Your task to perform on an android device: turn on translation in the chrome app Image 0: 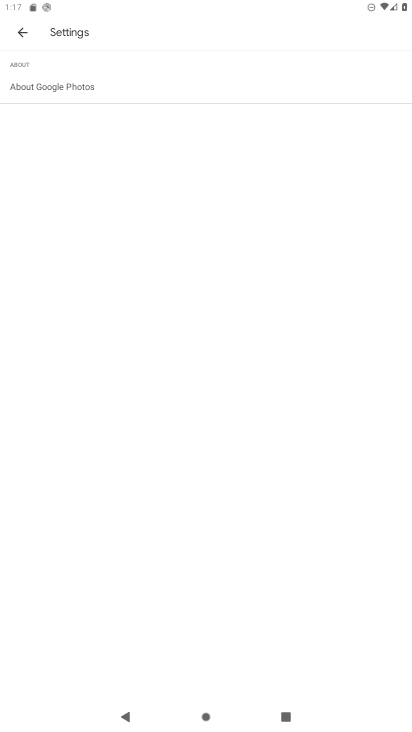
Step 0: press home button
Your task to perform on an android device: turn on translation in the chrome app Image 1: 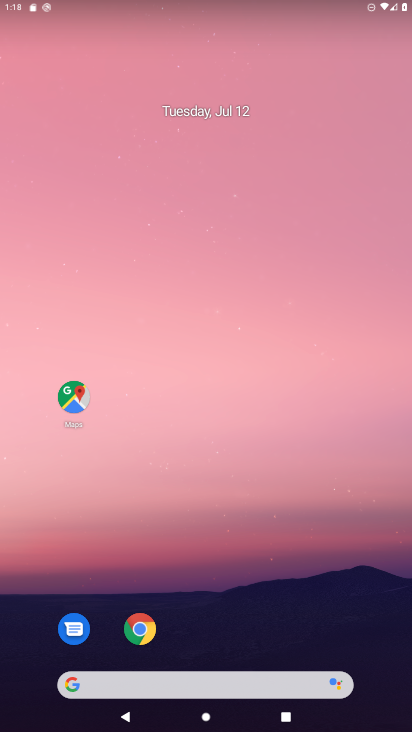
Step 1: click (141, 626)
Your task to perform on an android device: turn on translation in the chrome app Image 2: 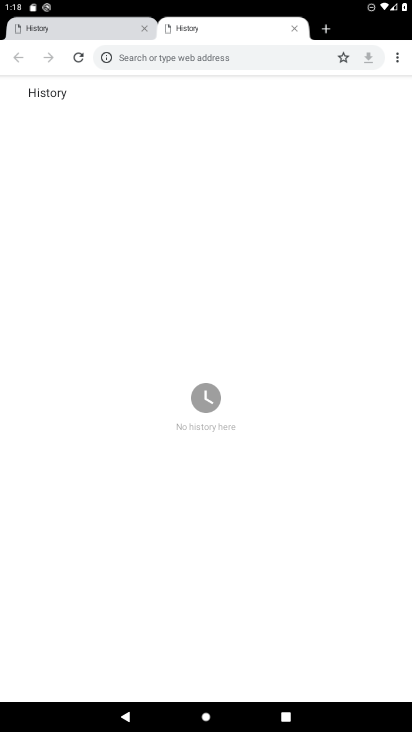
Step 2: click (396, 54)
Your task to perform on an android device: turn on translation in the chrome app Image 3: 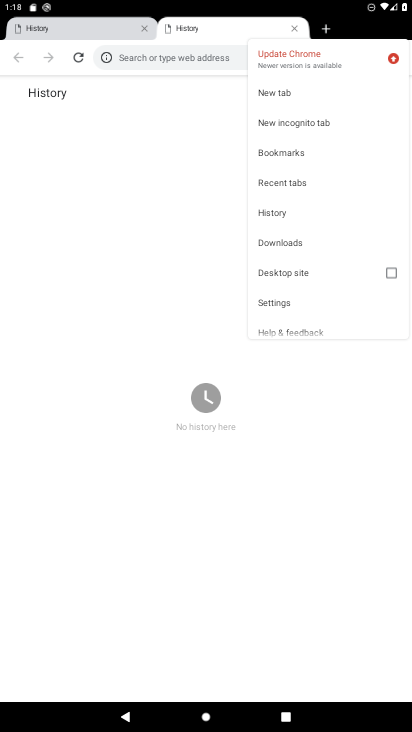
Step 3: click (291, 301)
Your task to perform on an android device: turn on translation in the chrome app Image 4: 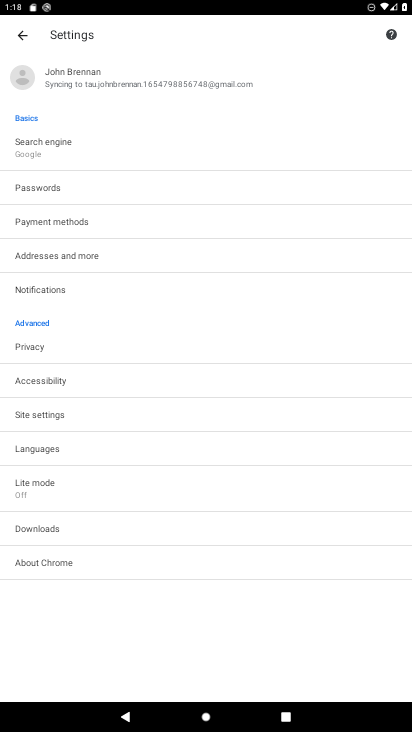
Step 4: click (67, 452)
Your task to perform on an android device: turn on translation in the chrome app Image 5: 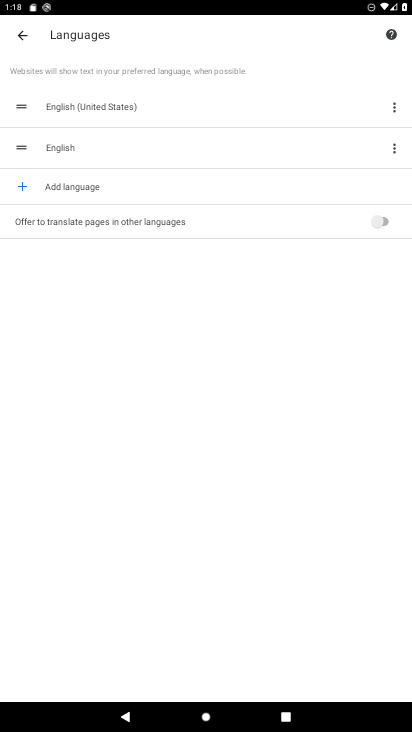
Step 5: click (387, 219)
Your task to perform on an android device: turn on translation in the chrome app Image 6: 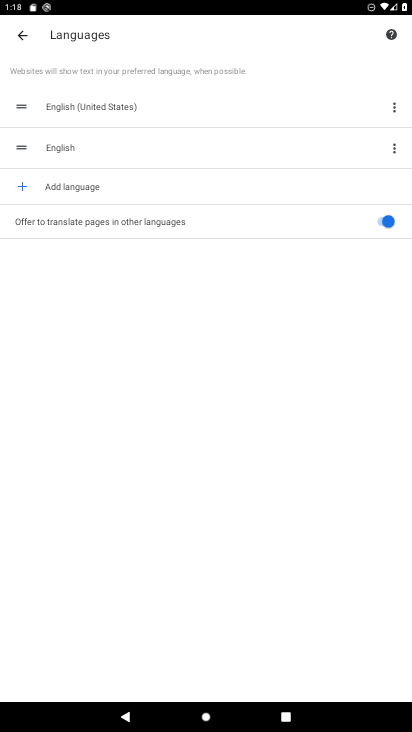
Step 6: task complete